Your task to perform on an android device: Search for pizza restaurants on Maps Image 0: 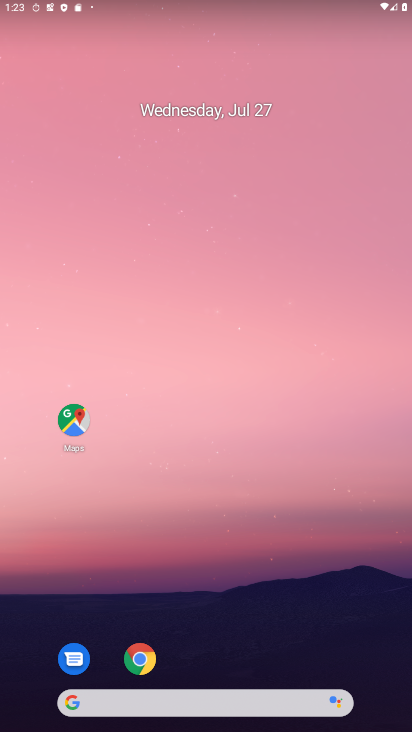
Step 0: press home button
Your task to perform on an android device: Search for pizza restaurants on Maps Image 1: 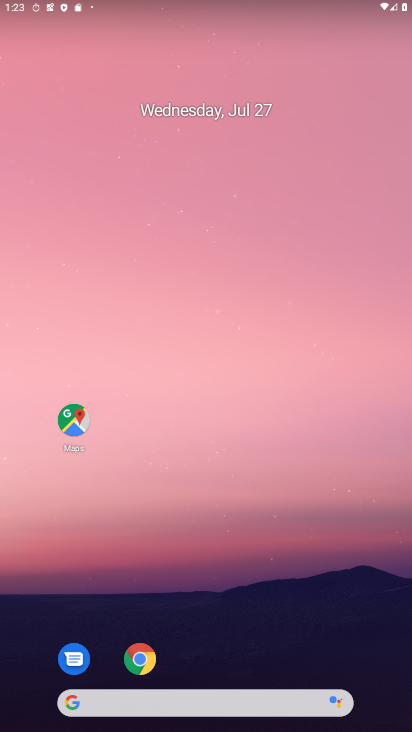
Step 1: click (91, 427)
Your task to perform on an android device: Search for pizza restaurants on Maps Image 2: 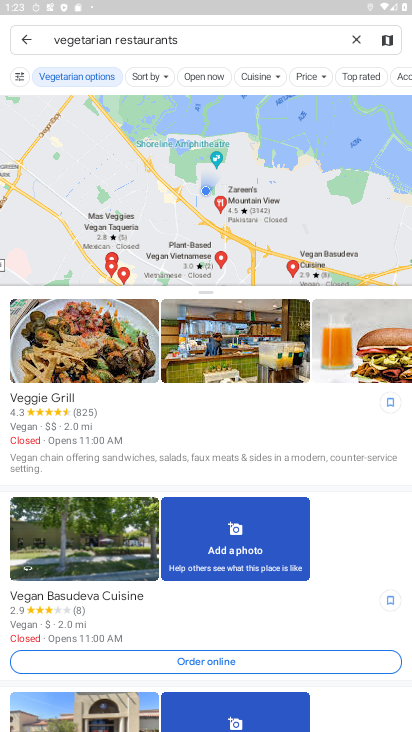
Step 2: click (358, 44)
Your task to perform on an android device: Search for pizza restaurants on Maps Image 3: 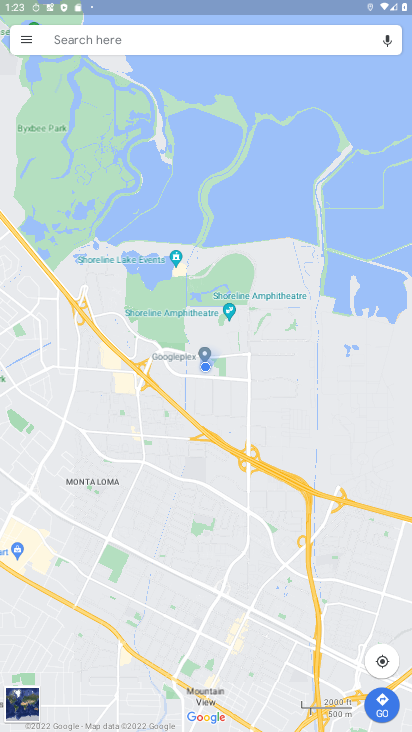
Step 3: click (295, 31)
Your task to perform on an android device: Search for pizza restaurants on Maps Image 4: 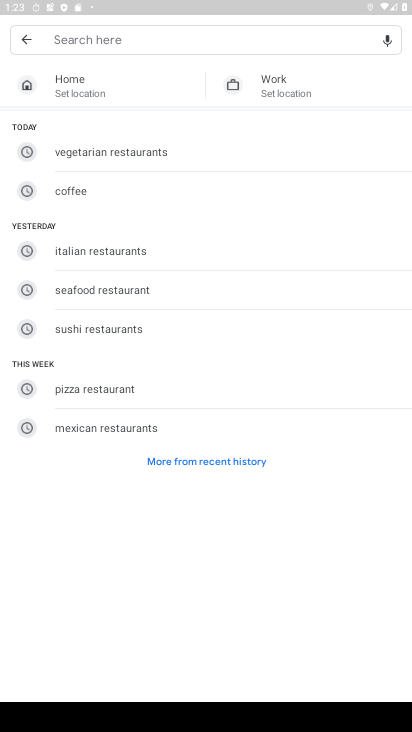
Step 4: type " pizza restaurants"
Your task to perform on an android device: Search for pizza restaurants on Maps Image 5: 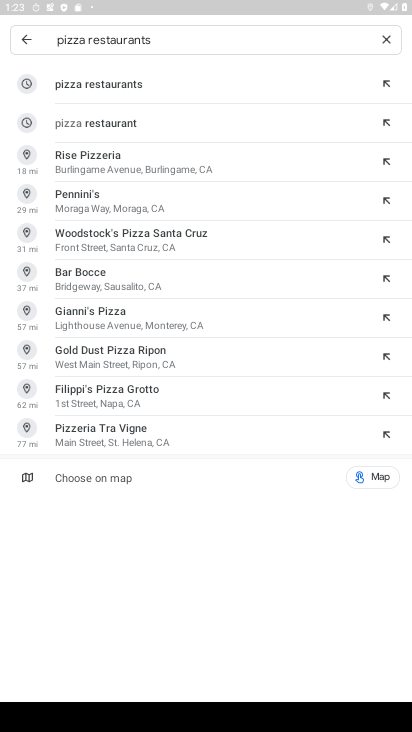
Step 5: click (111, 83)
Your task to perform on an android device: Search for pizza restaurants on Maps Image 6: 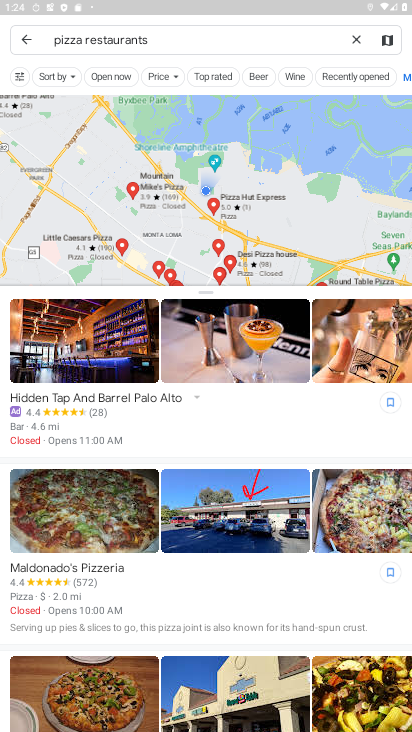
Step 6: task complete